Your task to perform on an android device: Add "razer naga" to the cart on target Image 0: 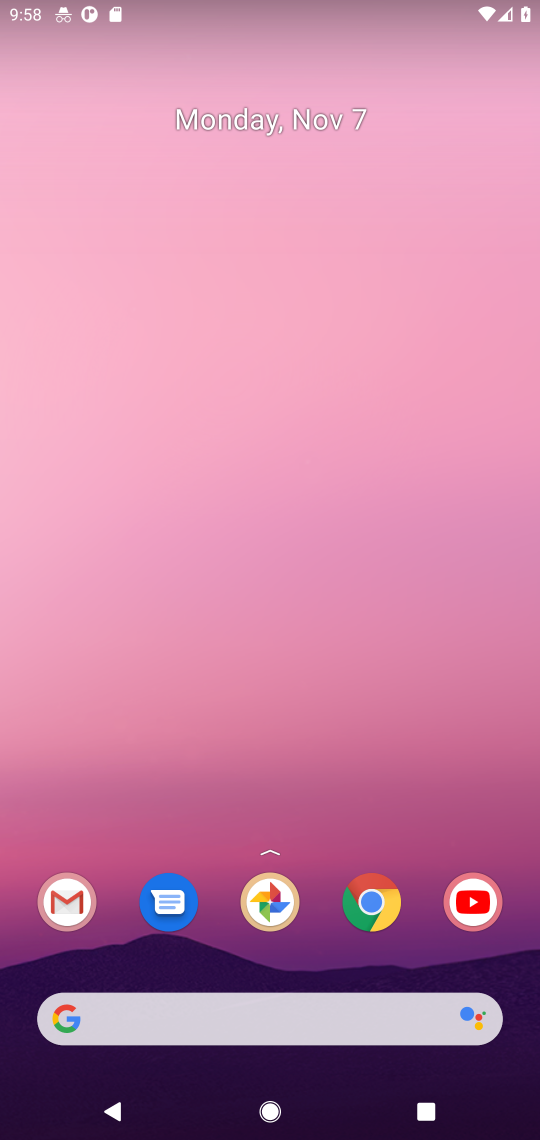
Step 0: click (371, 893)
Your task to perform on an android device: Add "razer naga" to the cart on target Image 1: 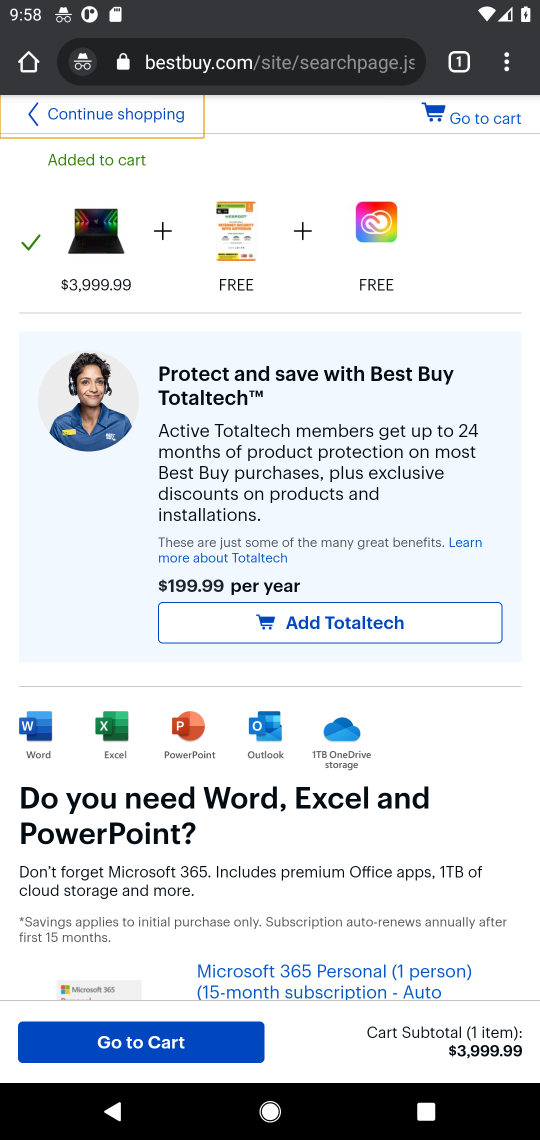
Step 1: click (260, 66)
Your task to perform on an android device: Add "razer naga" to the cart on target Image 2: 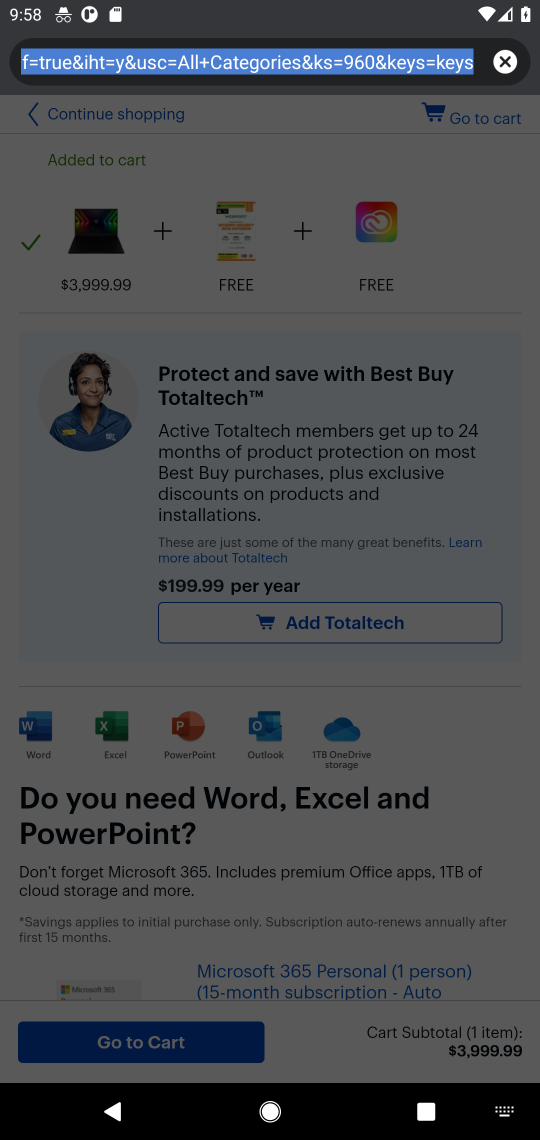
Step 2: type "target.com"
Your task to perform on an android device: Add "razer naga" to the cart on target Image 3: 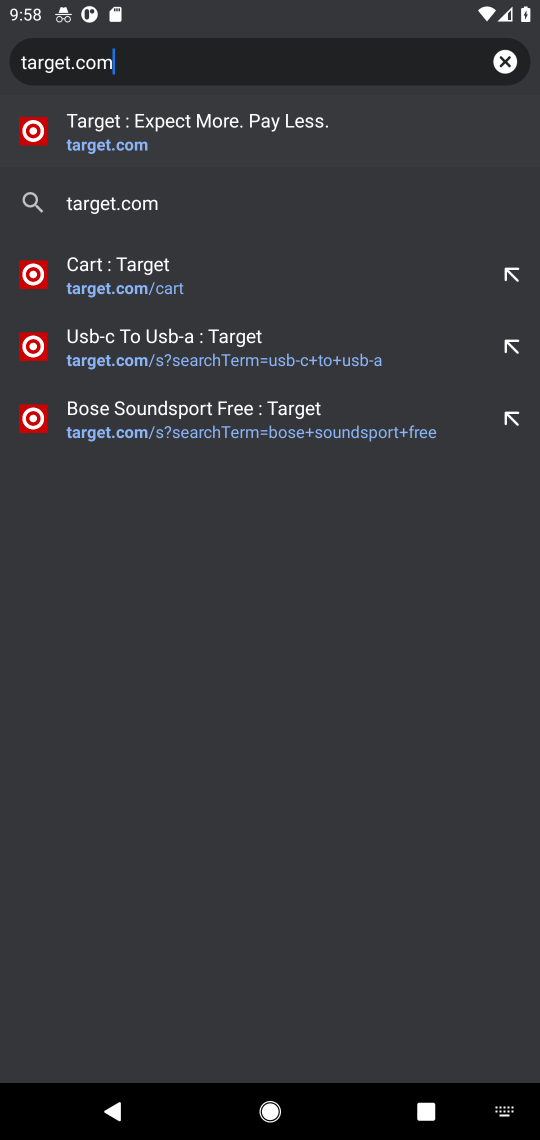
Step 3: click (92, 146)
Your task to perform on an android device: Add "razer naga" to the cart on target Image 4: 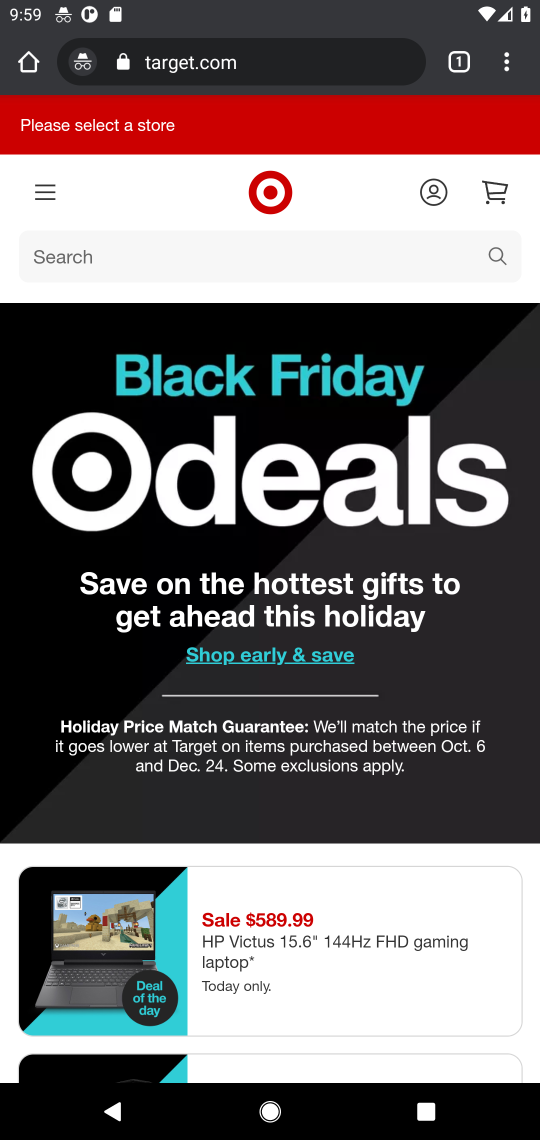
Step 4: click (494, 255)
Your task to perform on an android device: Add "razer naga" to the cart on target Image 5: 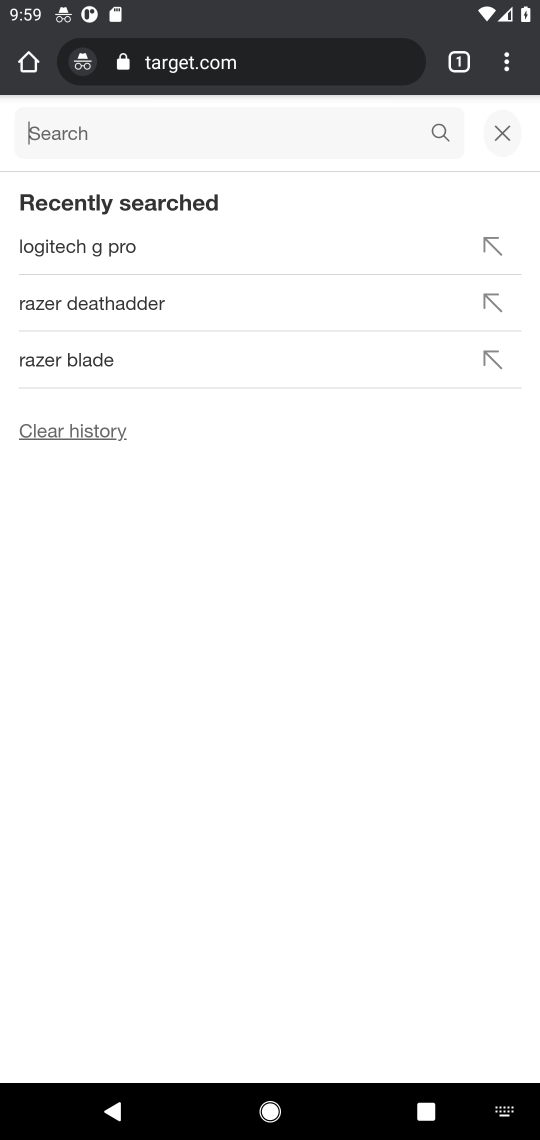
Step 5: type "razer naga"
Your task to perform on an android device: Add "razer naga" to the cart on target Image 6: 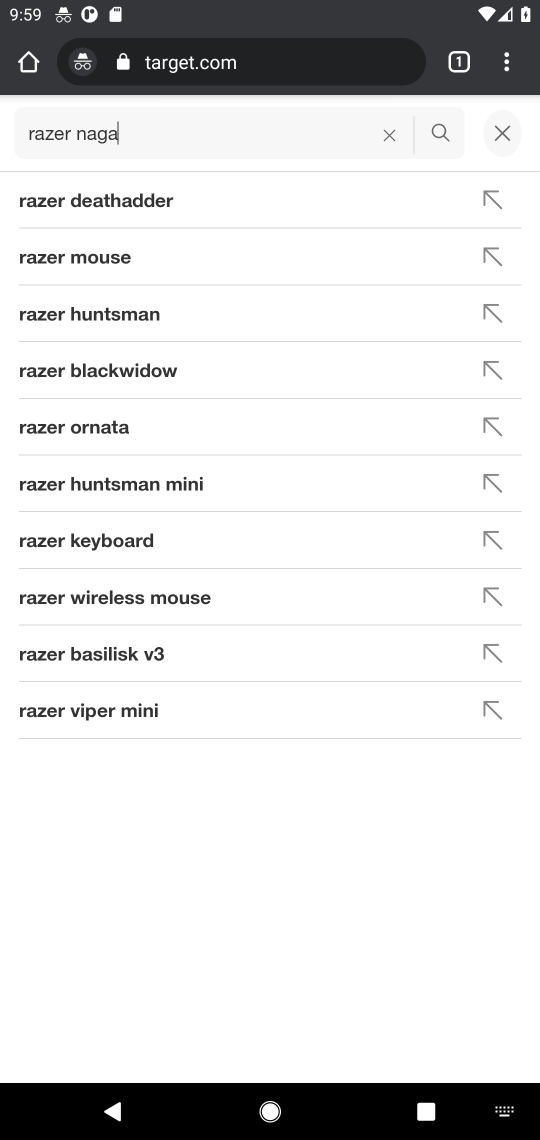
Step 6: click (444, 131)
Your task to perform on an android device: Add "razer naga" to the cart on target Image 7: 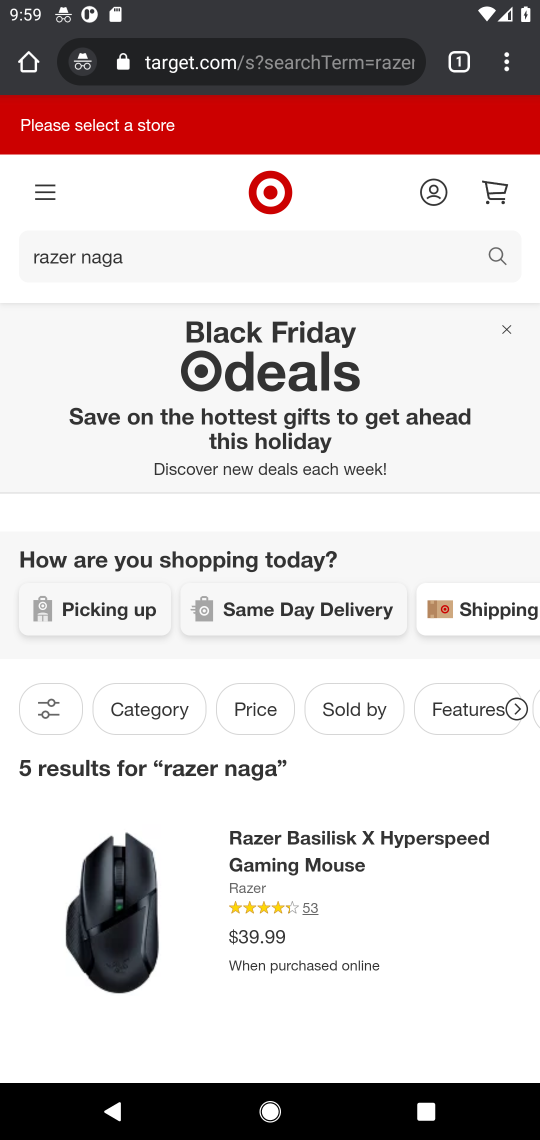
Step 7: task complete